Your task to perform on an android device: Open Yahoo.com Image 0: 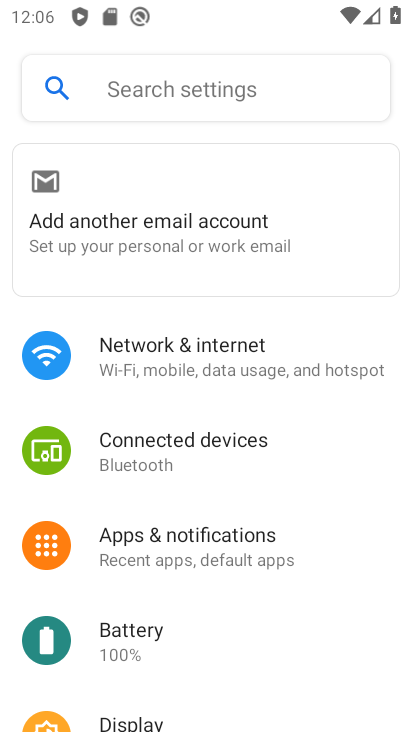
Step 0: press home button
Your task to perform on an android device: Open Yahoo.com Image 1: 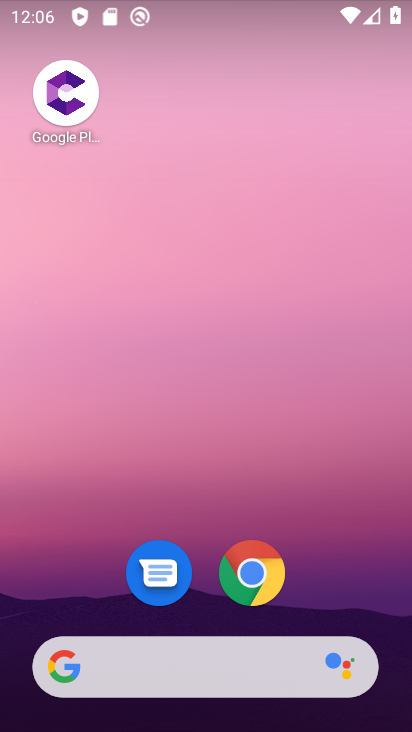
Step 1: click (259, 574)
Your task to perform on an android device: Open Yahoo.com Image 2: 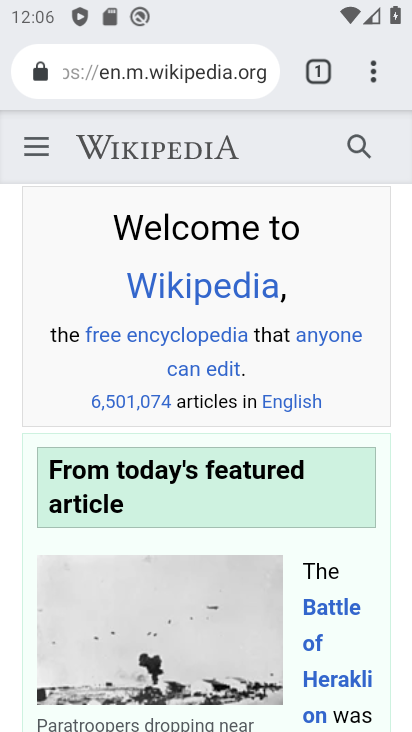
Step 2: click (371, 63)
Your task to perform on an android device: Open Yahoo.com Image 3: 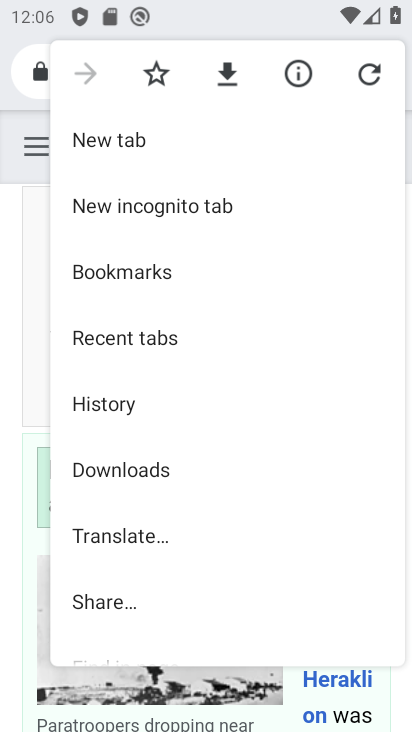
Step 3: click (105, 128)
Your task to perform on an android device: Open Yahoo.com Image 4: 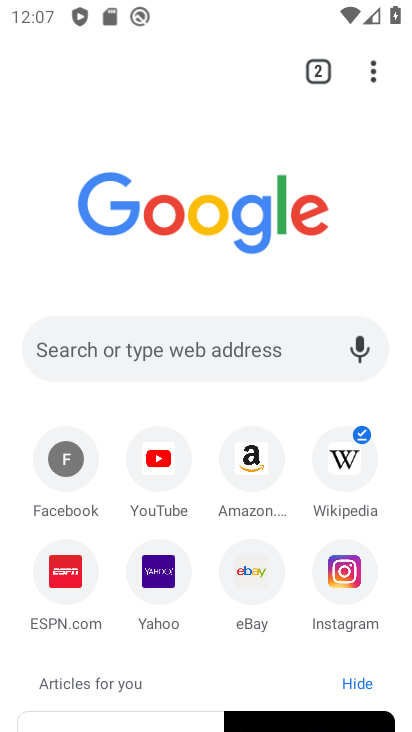
Step 4: click (160, 565)
Your task to perform on an android device: Open Yahoo.com Image 5: 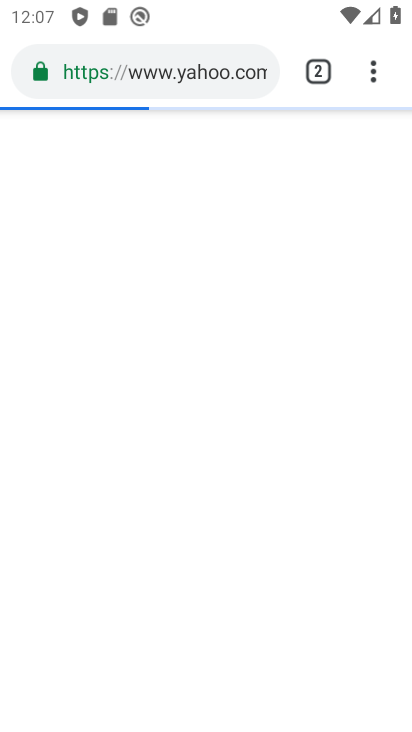
Step 5: click (160, 565)
Your task to perform on an android device: Open Yahoo.com Image 6: 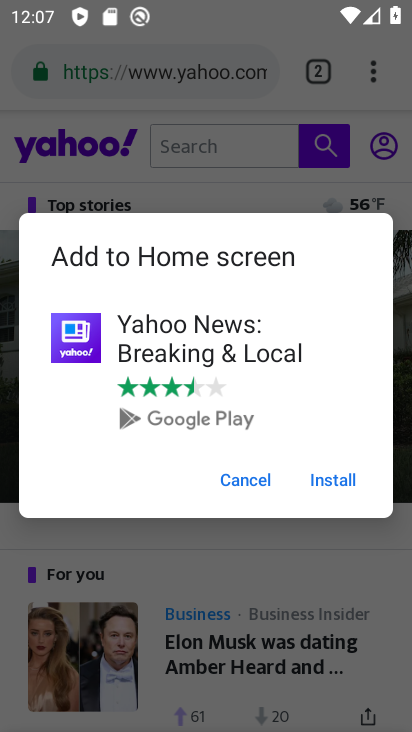
Step 6: task complete